Your task to perform on an android device: turn off translation in the chrome app Image 0: 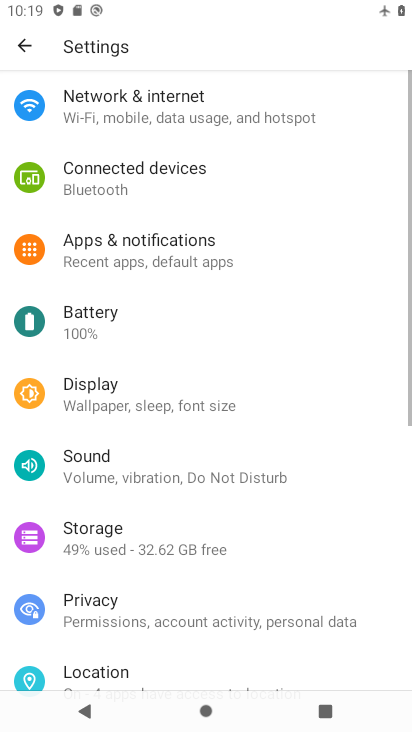
Step 0: press back button
Your task to perform on an android device: turn off translation in the chrome app Image 1: 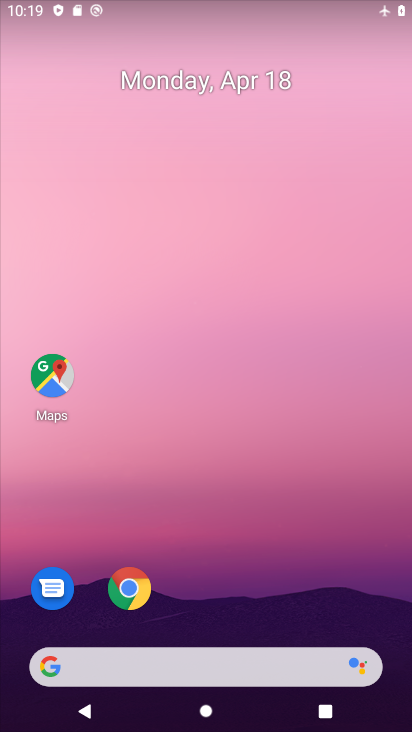
Step 1: click (132, 573)
Your task to perform on an android device: turn off translation in the chrome app Image 2: 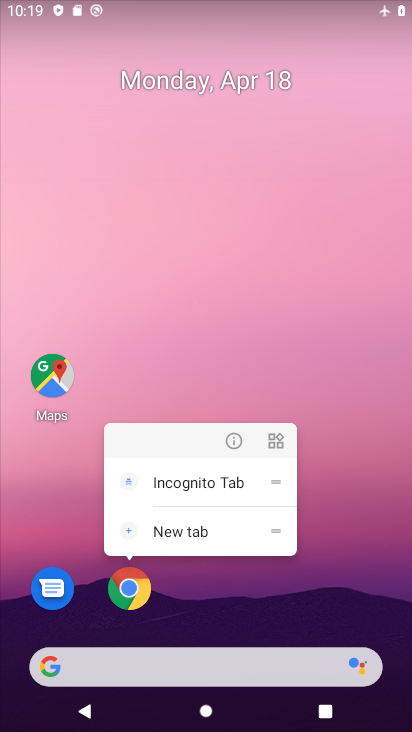
Step 2: click (132, 571)
Your task to perform on an android device: turn off translation in the chrome app Image 3: 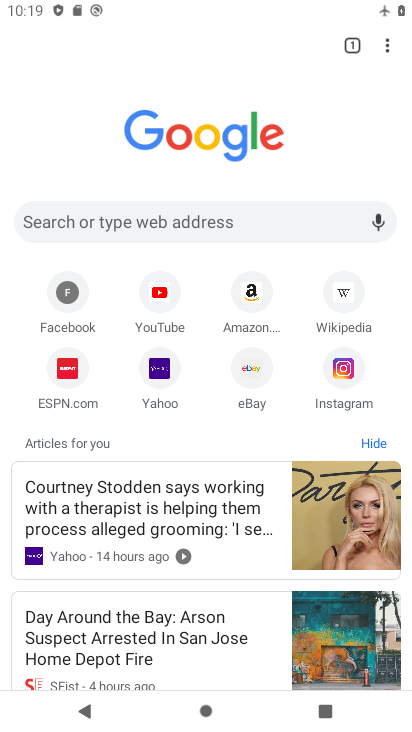
Step 3: click (385, 43)
Your task to perform on an android device: turn off translation in the chrome app Image 4: 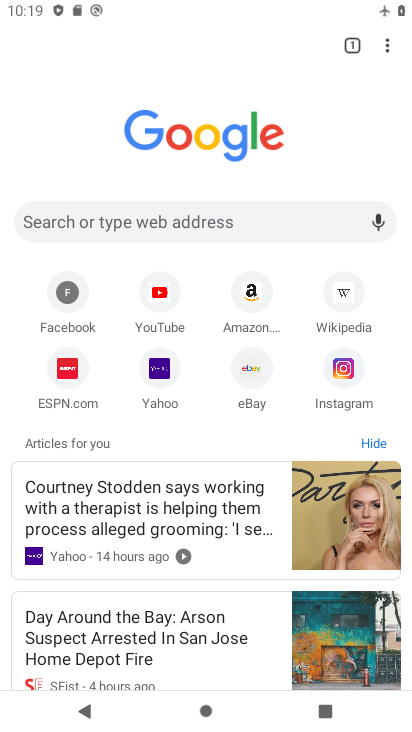
Step 4: click (385, 43)
Your task to perform on an android device: turn off translation in the chrome app Image 5: 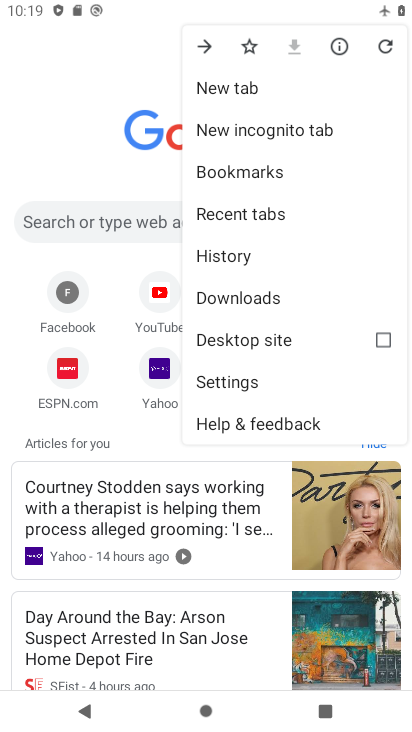
Step 5: click (228, 370)
Your task to perform on an android device: turn off translation in the chrome app Image 6: 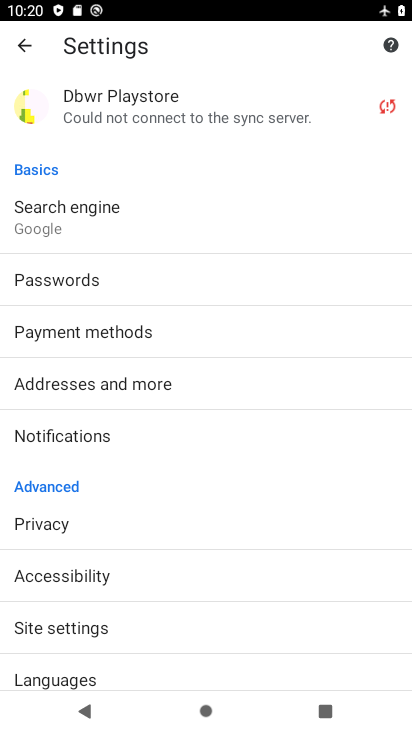
Step 6: drag from (149, 605) to (174, 434)
Your task to perform on an android device: turn off translation in the chrome app Image 7: 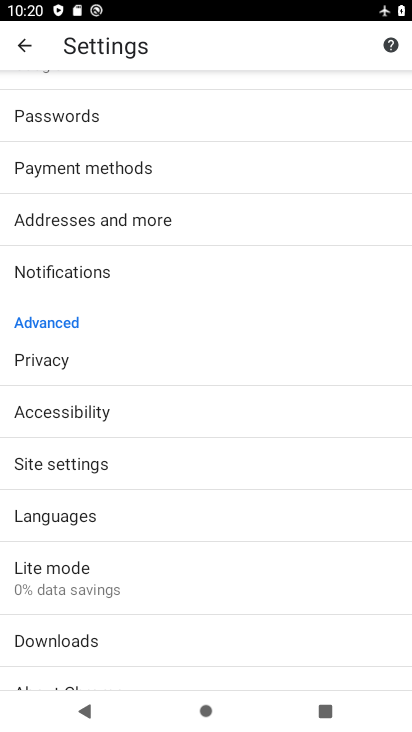
Step 7: click (125, 517)
Your task to perform on an android device: turn off translation in the chrome app Image 8: 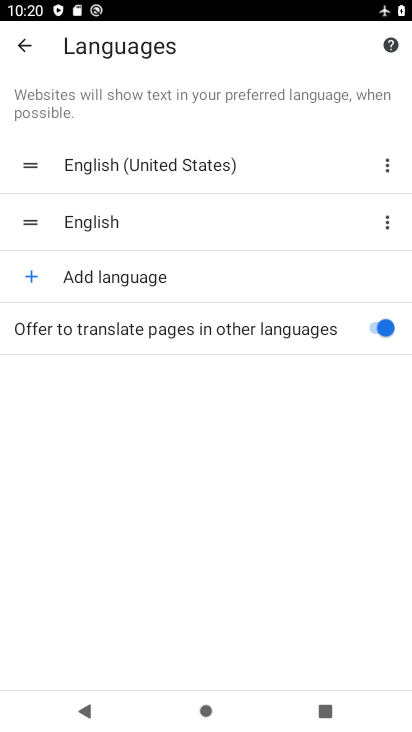
Step 8: click (386, 320)
Your task to perform on an android device: turn off translation in the chrome app Image 9: 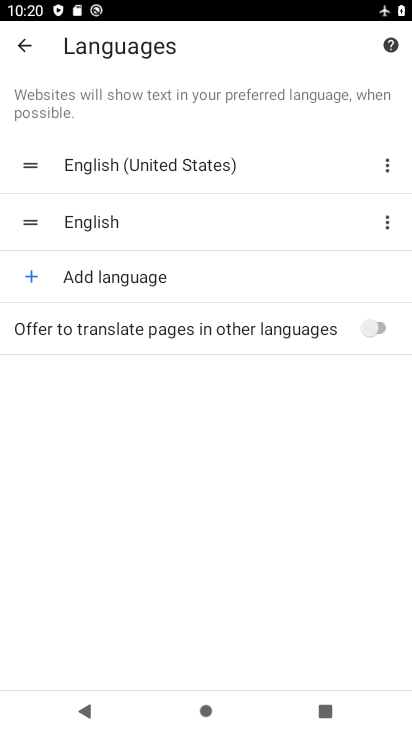
Step 9: task complete